Your task to perform on an android device: empty trash in google photos Image 0: 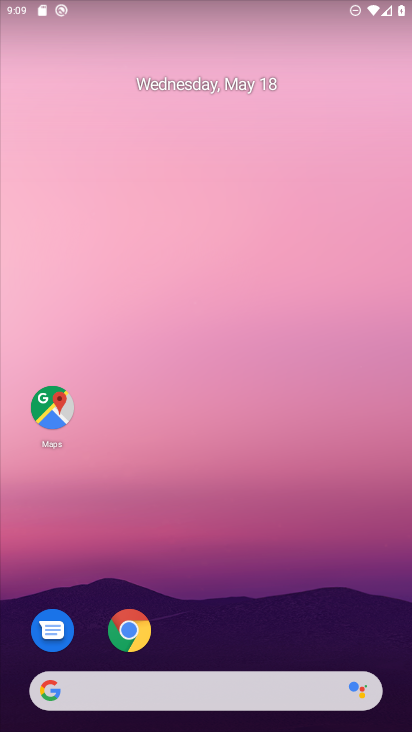
Step 0: drag from (243, 657) to (190, 0)
Your task to perform on an android device: empty trash in google photos Image 1: 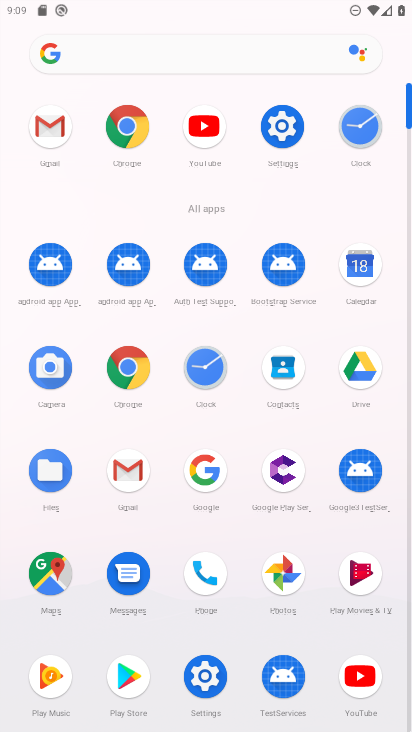
Step 1: click (276, 571)
Your task to perform on an android device: empty trash in google photos Image 2: 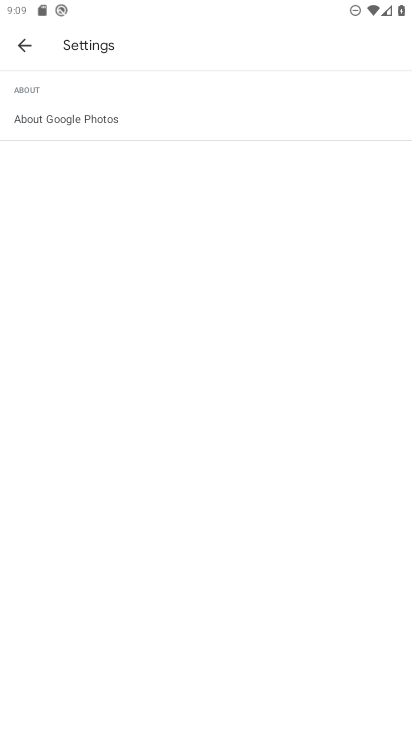
Step 2: click (22, 37)
Your task to perform on an android device: empty trash in google photos Image 3: 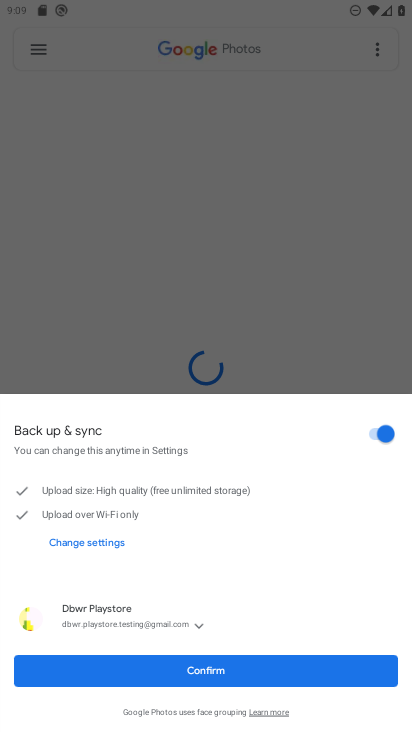
Step 3: click (218, 675)
Your task to perform on an android device: empty trash in google photos Image 4: 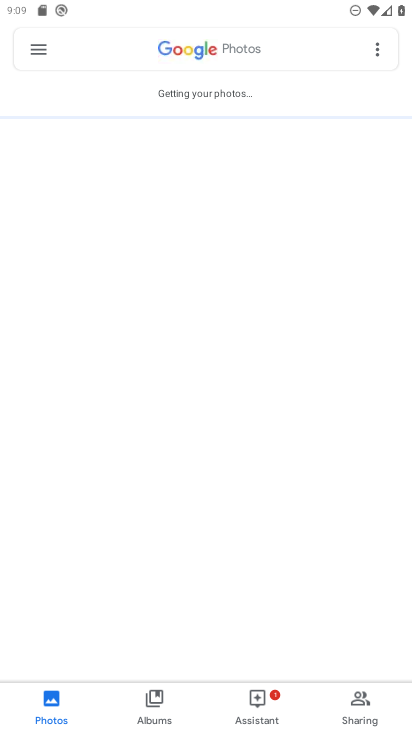
Step 4: click (41, 52)
Your task to perform on an android device: empty trash in google photos Image 5: 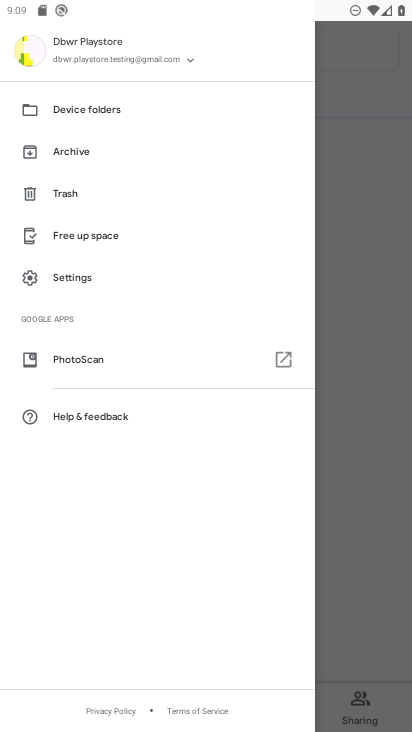
Step 5: click (72, 183)
Your task to perform on an android device: empty trash in google photos Image 6: 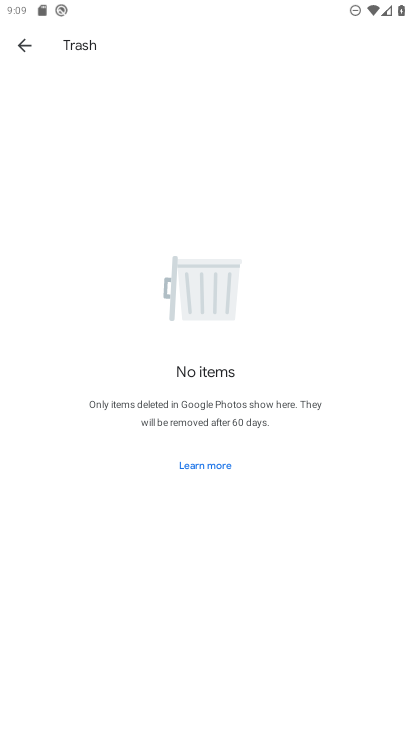
Step 6: task complete